Your task to perform on an android device: toggle data saver in the chrome app Image 0: 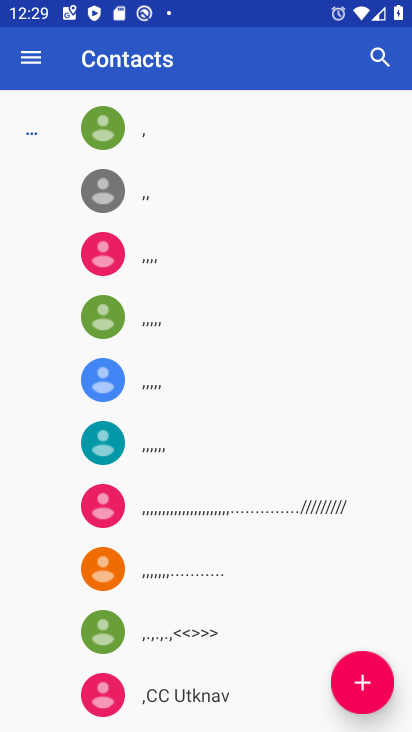
Step 0: press home button
Your task to perform on an android device: toggle data saver in the chrome app Image 1: 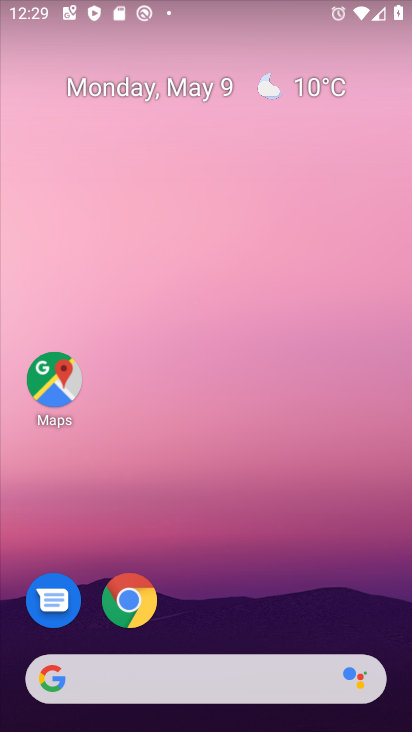
Step 1: click (129, 597)
Your task to perform on an android device: toggle data saver in the chrome app Image 2: 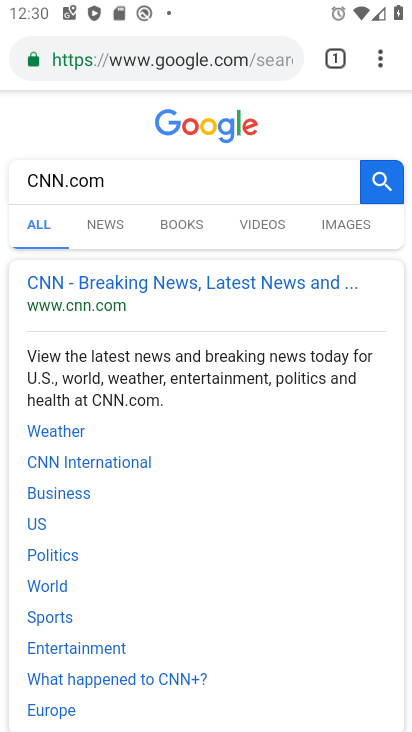
Step 2: click (382, 57)
Your task to perform on an android device: toggle data saver in the chrome app Image 3: 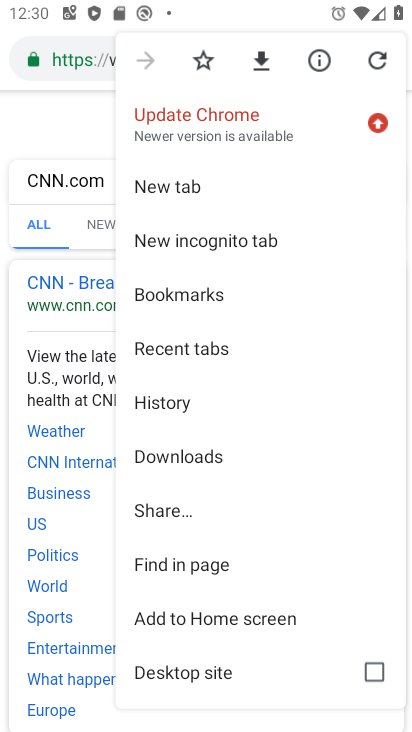
Step 3: drag from (216, 561) to (252, 124)
Your task to perform on an android device: toggle data saver in the chrome app Image 4: 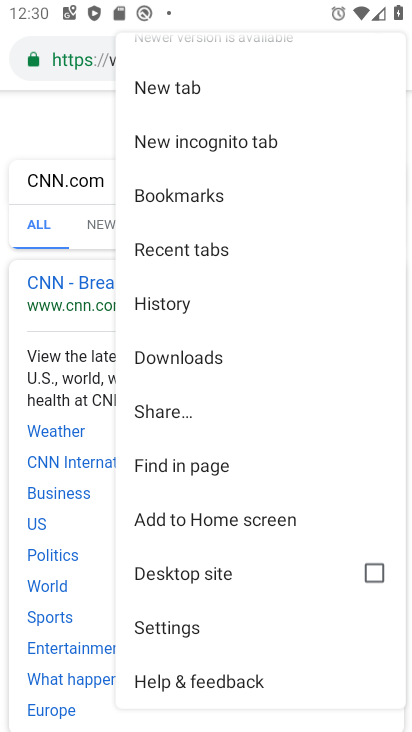
Step 4: click (182, 618)
Your task to perform on an android device: toggle data saver in the chrome app Image 5: 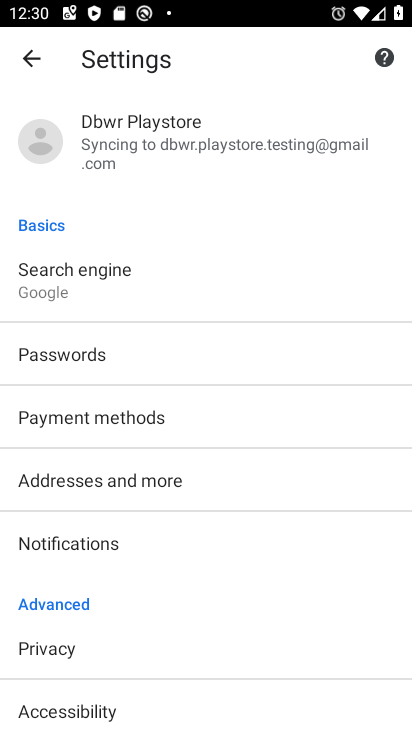
Step 5: drag from (59, 618) to (138, 208)
Your task to perform on an android device: toggle data saver in the chrome app Image 6: 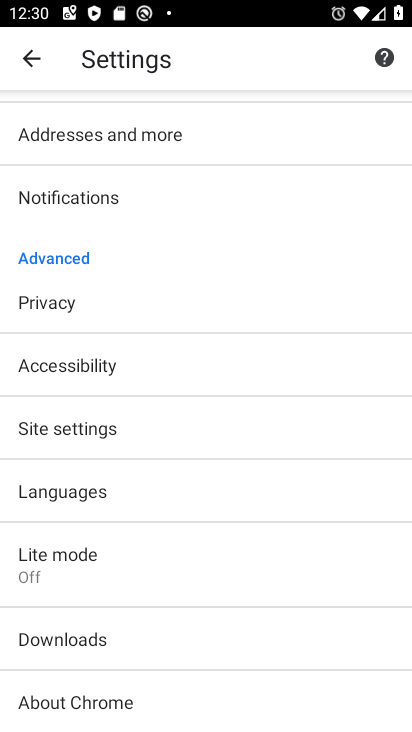
Step 6: click (51, 562)
Your task to perform on an android device: toggle data saver in the chrome app Image 7: 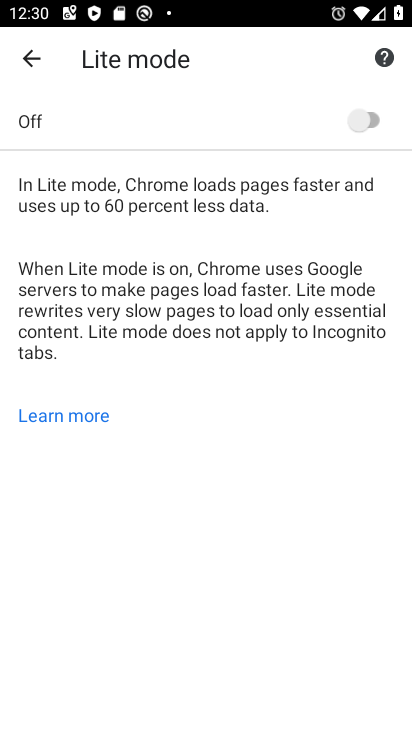
Step 7: click (365, 107)
Your task to perform on an android device: toggle data saver in the chrome app Image 8: 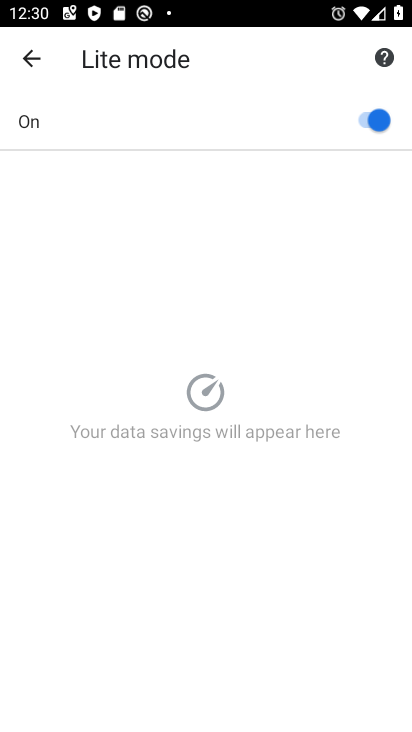
Step 8: task complete